Your task to perform on an android device: Do I have any events this weekend? Image 0: 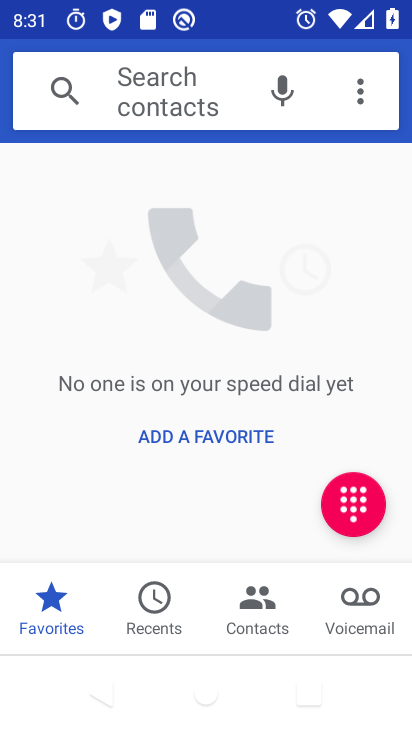
Step 0: press home button
Your task to perform on an android device: Do I have any events this weekend? Image 1: 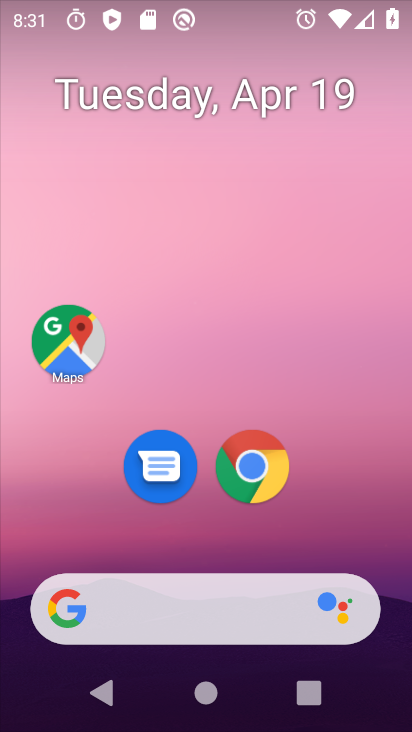
Step 1: drag from (317, 509) to (272, 100)
Your task to perform on an android device: Do I have any events this weekend? Image 2: 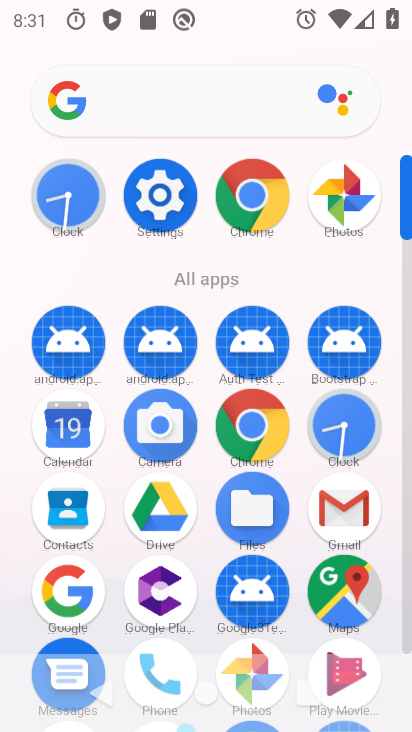
Step 2: click (77, 433)
Your task to perform on an android device: Do I have any events this weekend? Image 3: 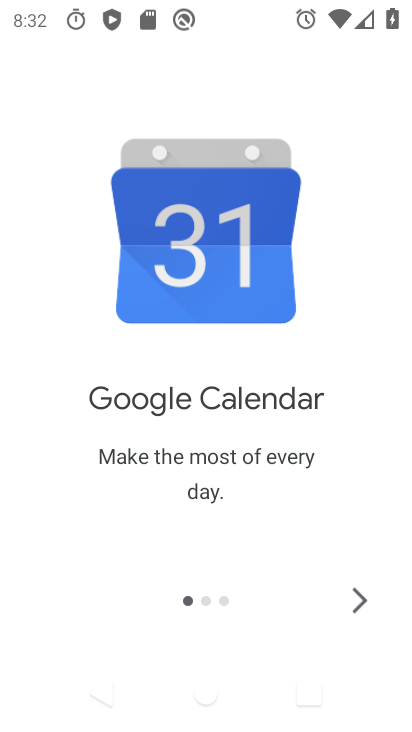
Step 3: click (366, 586)
Your task to perform on an android device: Do I have any events this weekend? Image 4: 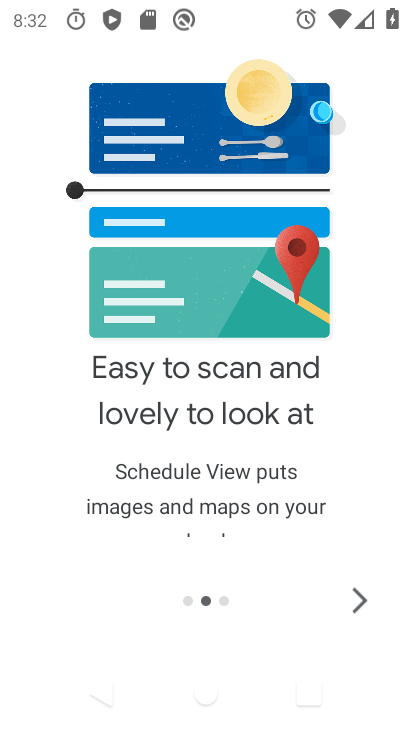
Step 4: click (366, 586)
Your task to perform on an android device: Do I have any events this weekend? Image 5: 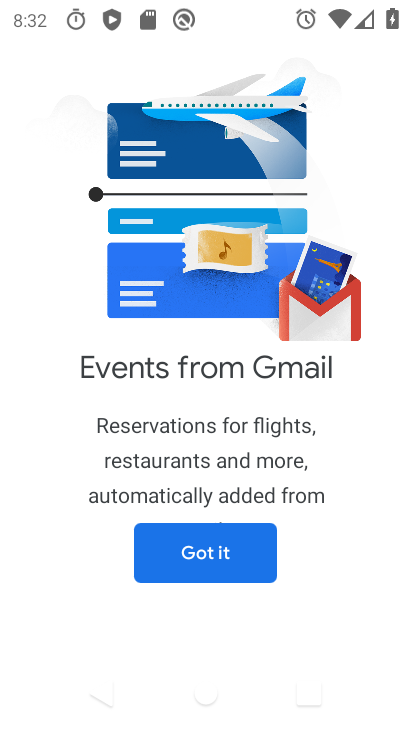
Step 5: click (190, 556)
Your task to perform on an android device: Do I have any events this weekend? Image 6: 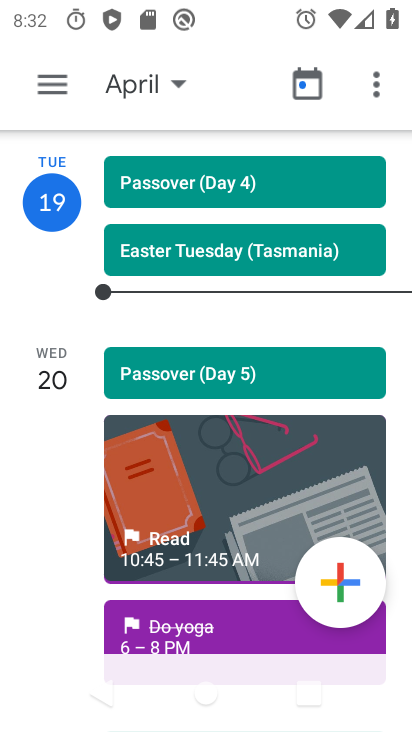
Step 6: click (132, 76)
Your task to perform on an android device: Do I have any events this weekend? Image 7: 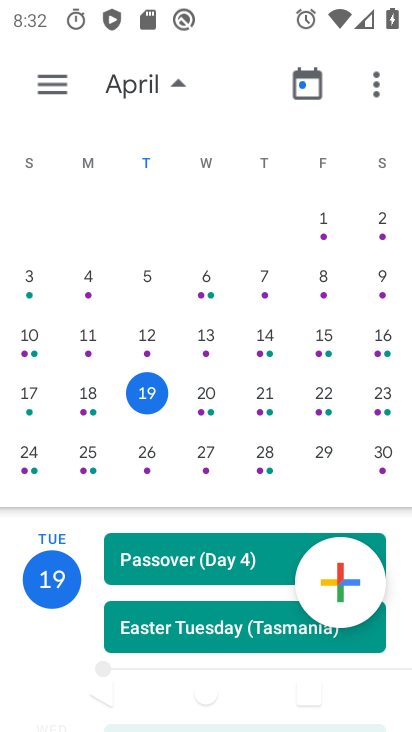
Step 7: click (214, 402)
Your task to perform on an android device: Do I have any events this weekend? Image 8: 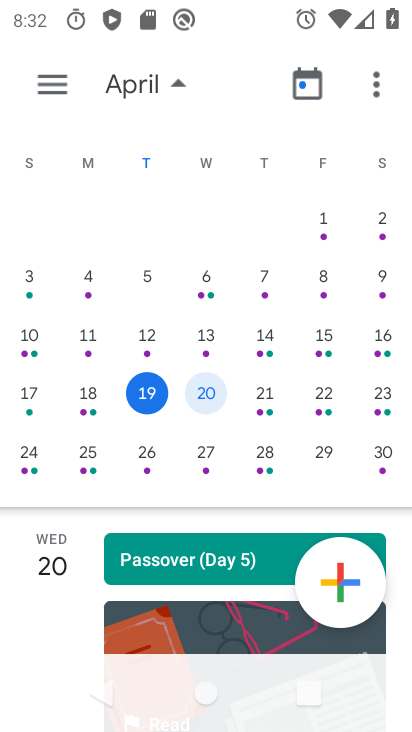
Step 8: task complete